Your task to perform on an android device: open app "Facebook" Image 0: 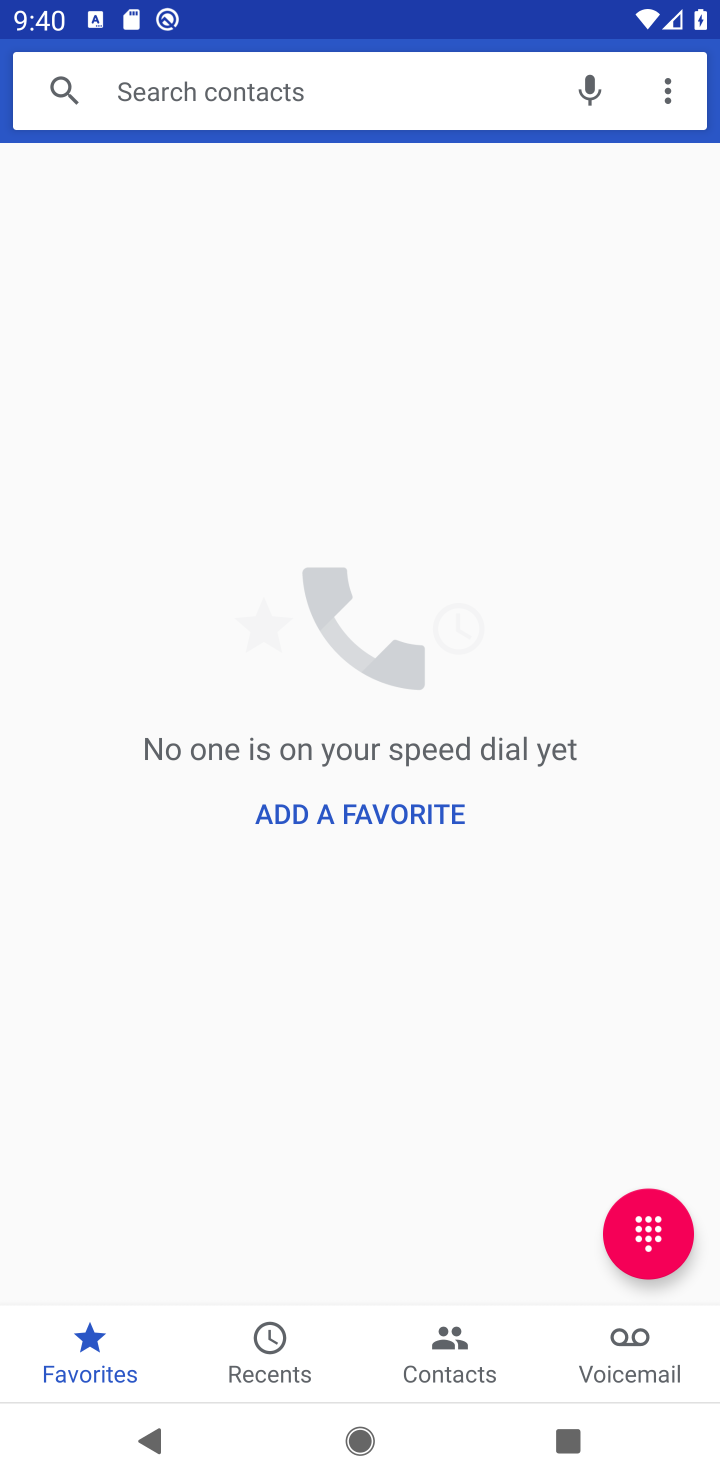
Step 0: press back button
Your task to perform on an android device: open app "Facebook" Image 1: 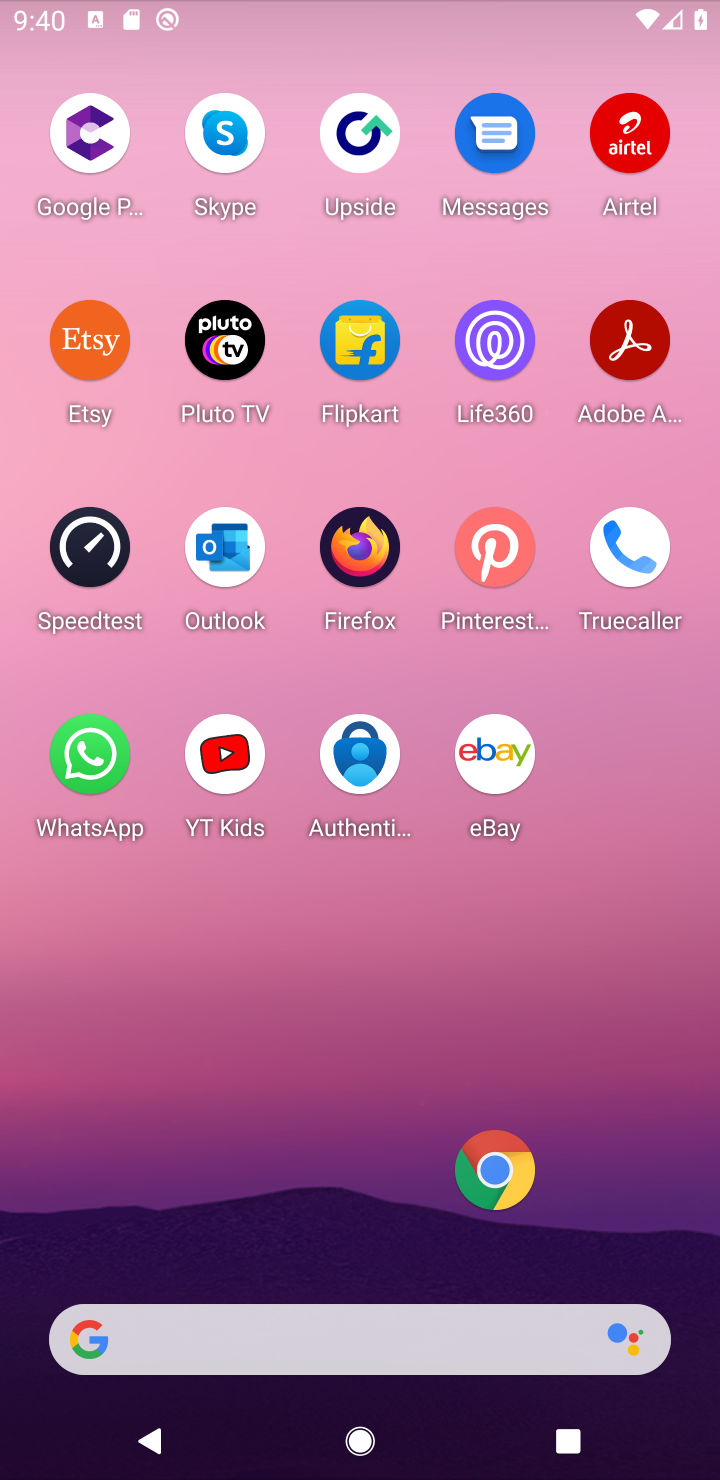
Step 1: drag from (269, 1196) to (508, 98)
Your task to perform on an android device: open app "Facebook" Image 2: 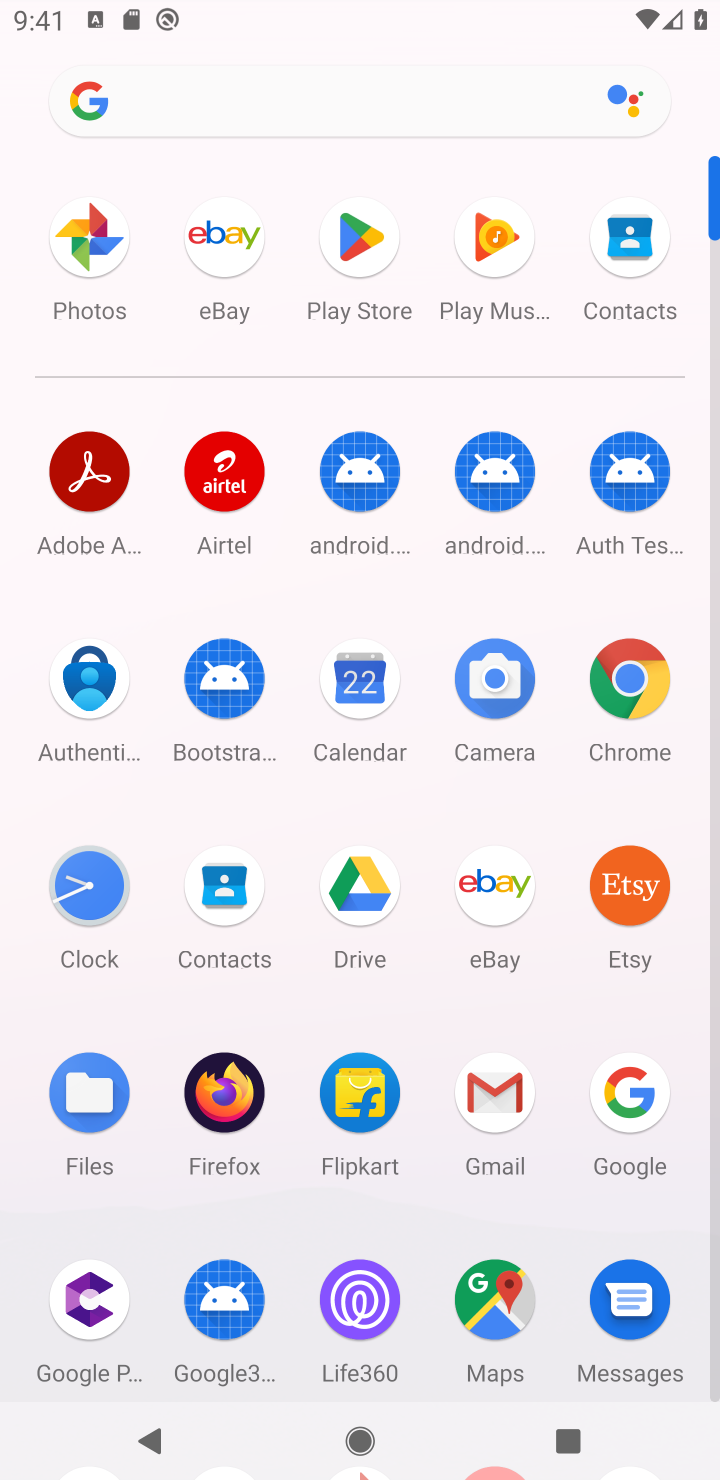
Step 2: click (363, 236)
Your task to perform on an android device: open app "Facebook" Image 3: 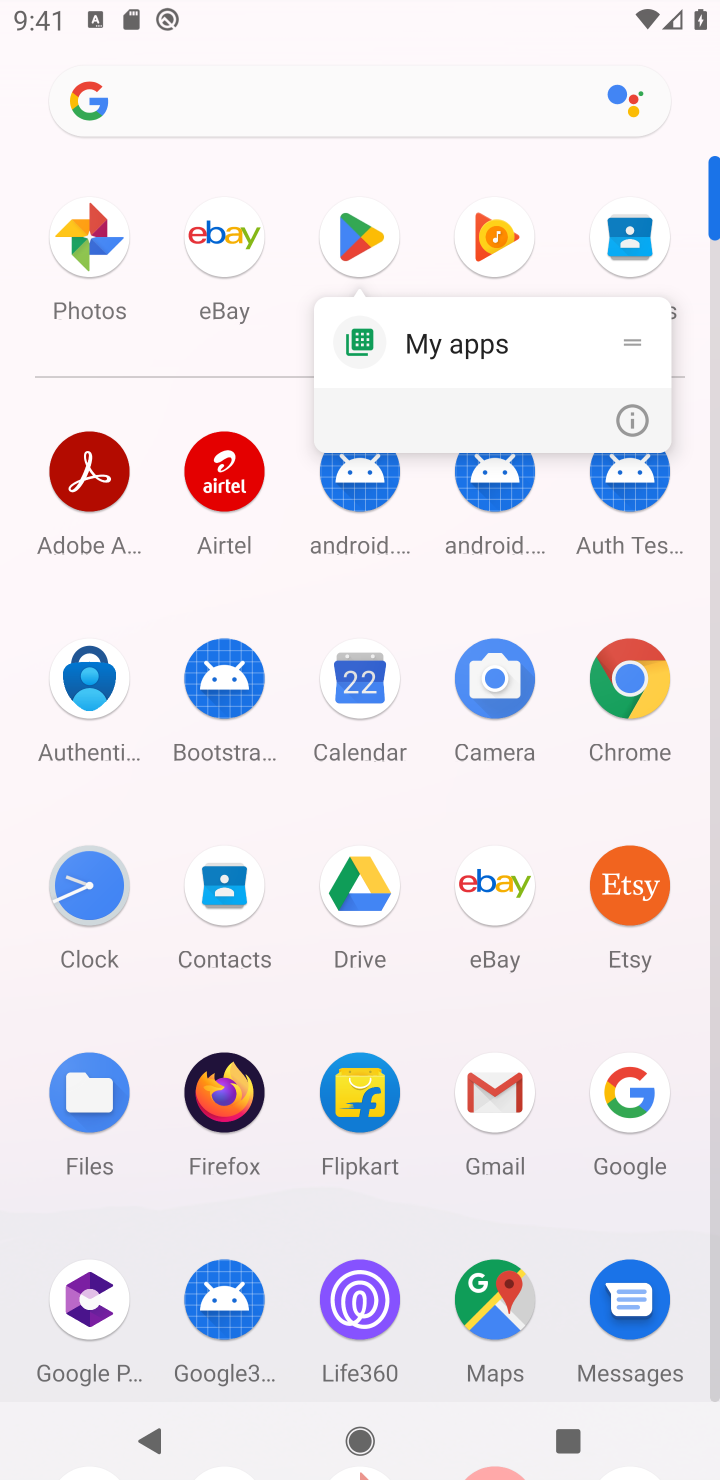
Step 3: click (332, 235)
Your task to perform on an android device: open app "Facebook" Image 4: 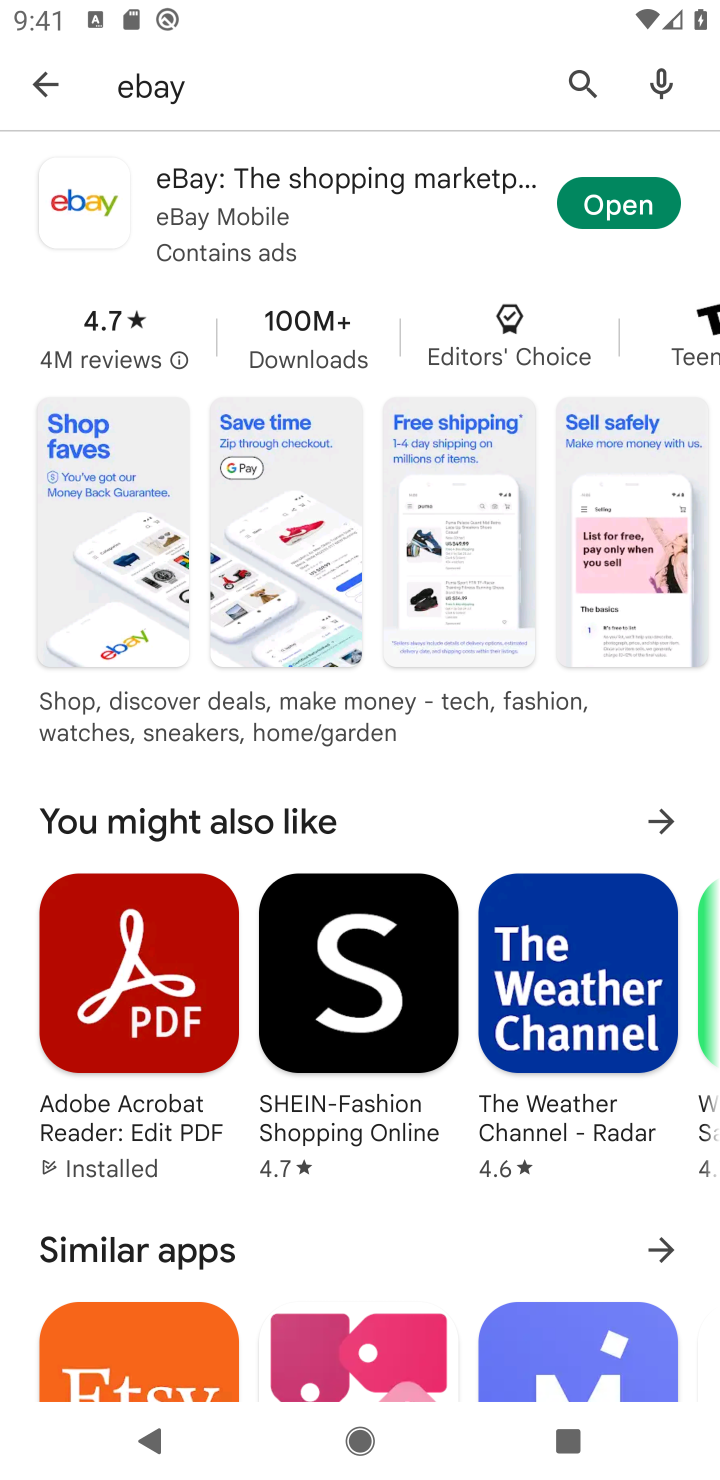
Step 4: click (586, 64)
Your task to perform on an android device: open app "Facebook" Image 5: 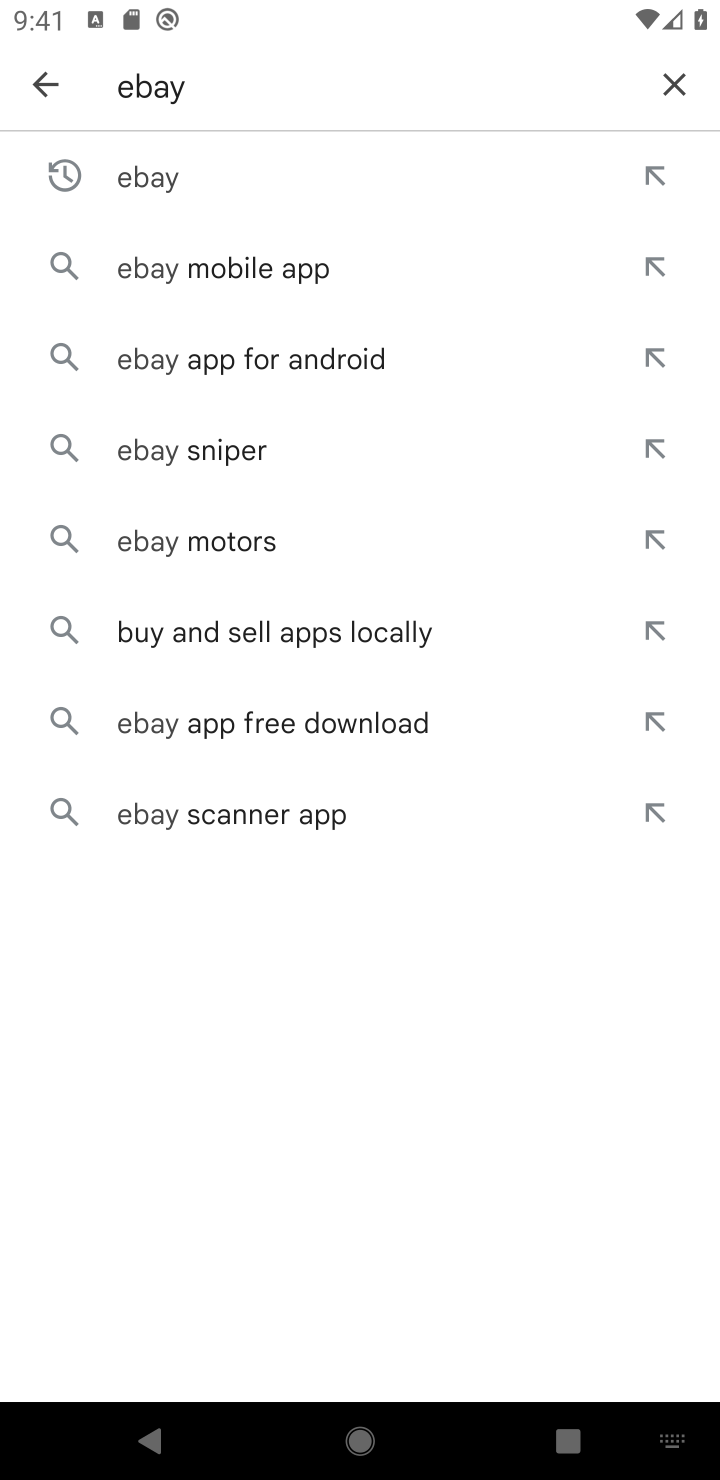
Step 5: click (661, 91)
Your task to perform on an android device: open app "Facebook" Image 6: 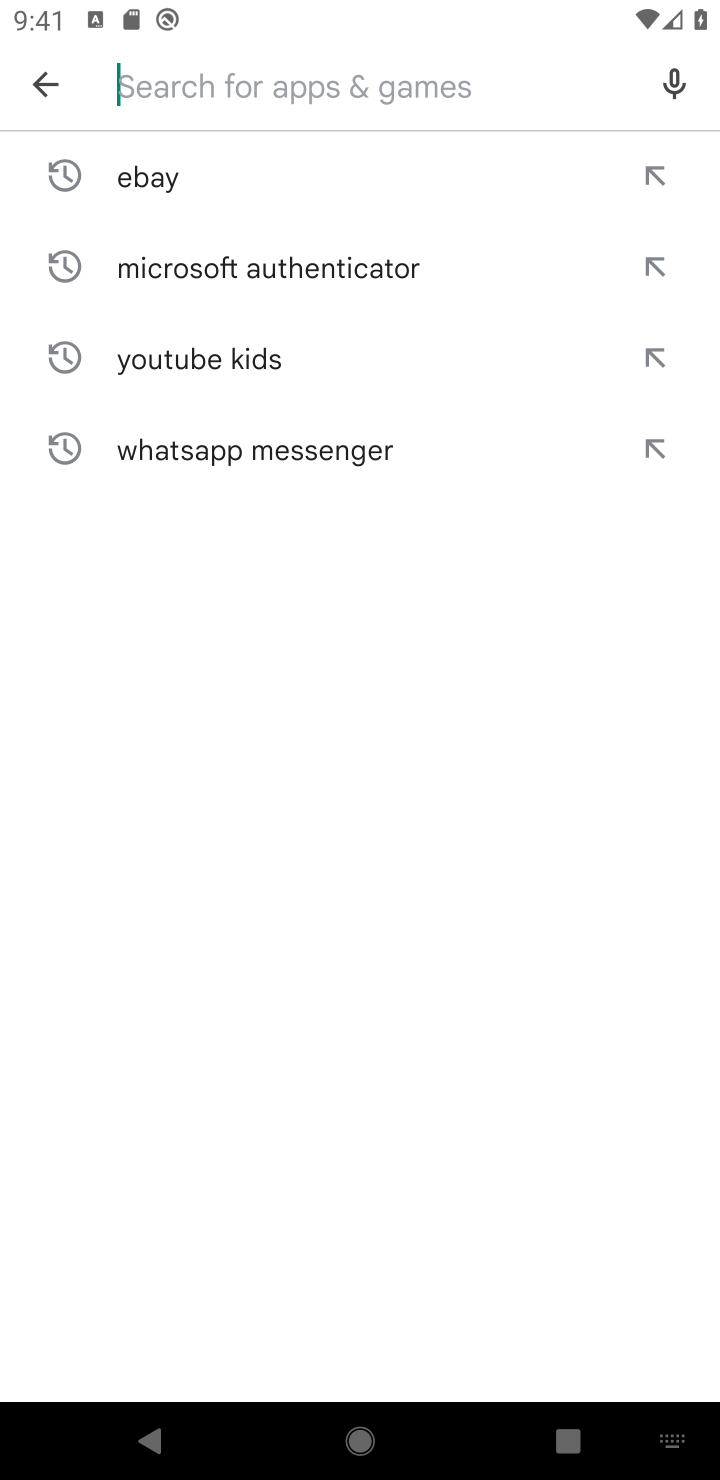
Step 6: click (224, 84)
Your task to perform on an android device: open app "Facebook" Image 7: 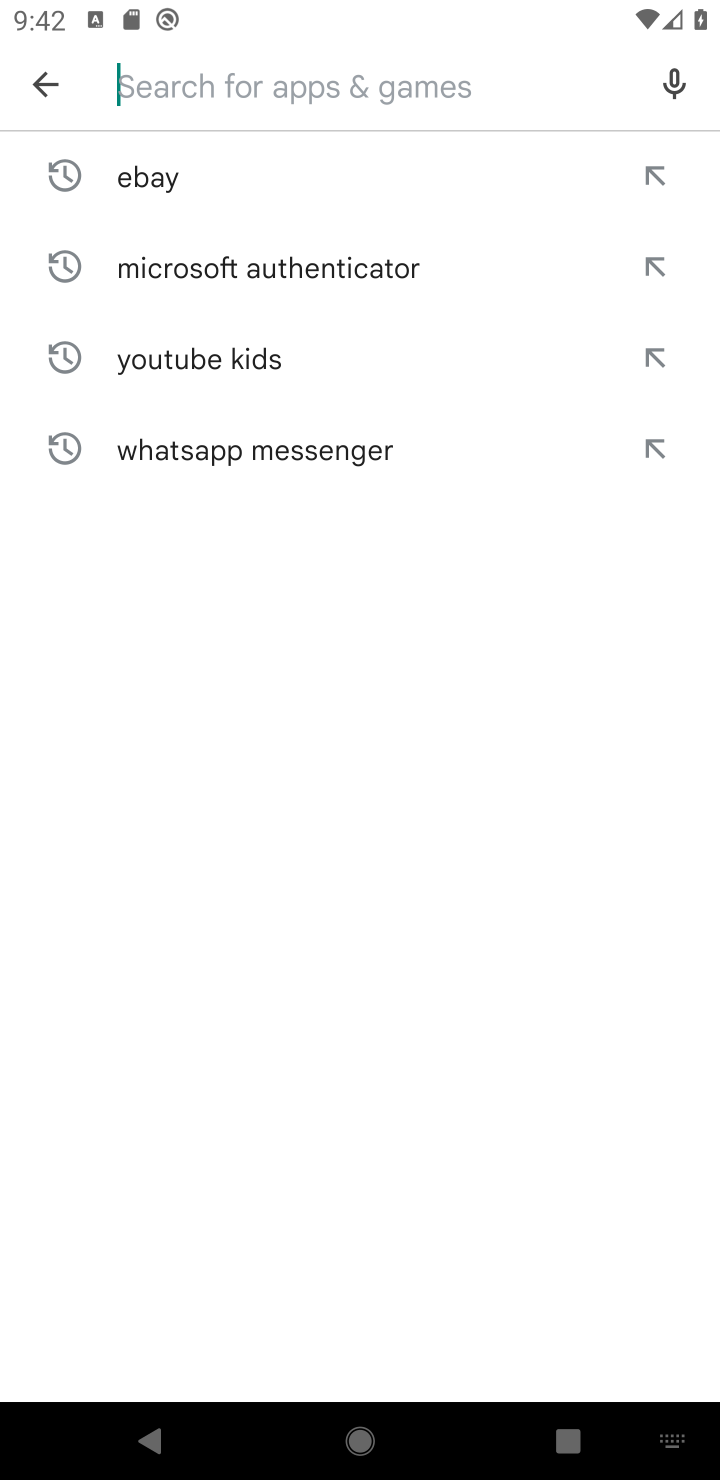
Step 7: click (321, 89)
Your task to perform on an android device: open app "Facebook" Image 8: 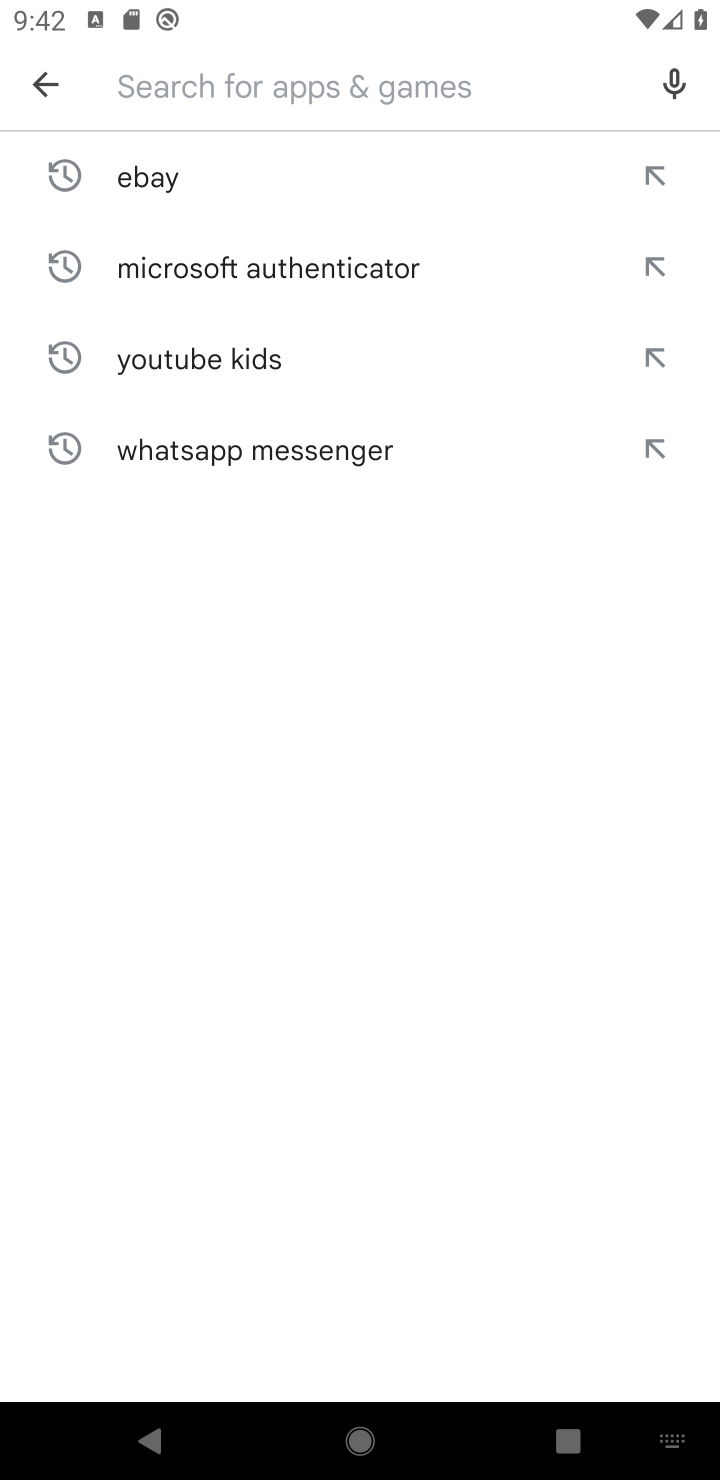
Step 8: type "facebook"
Your task to perform on an android device: open app "Facebook" Image 9: 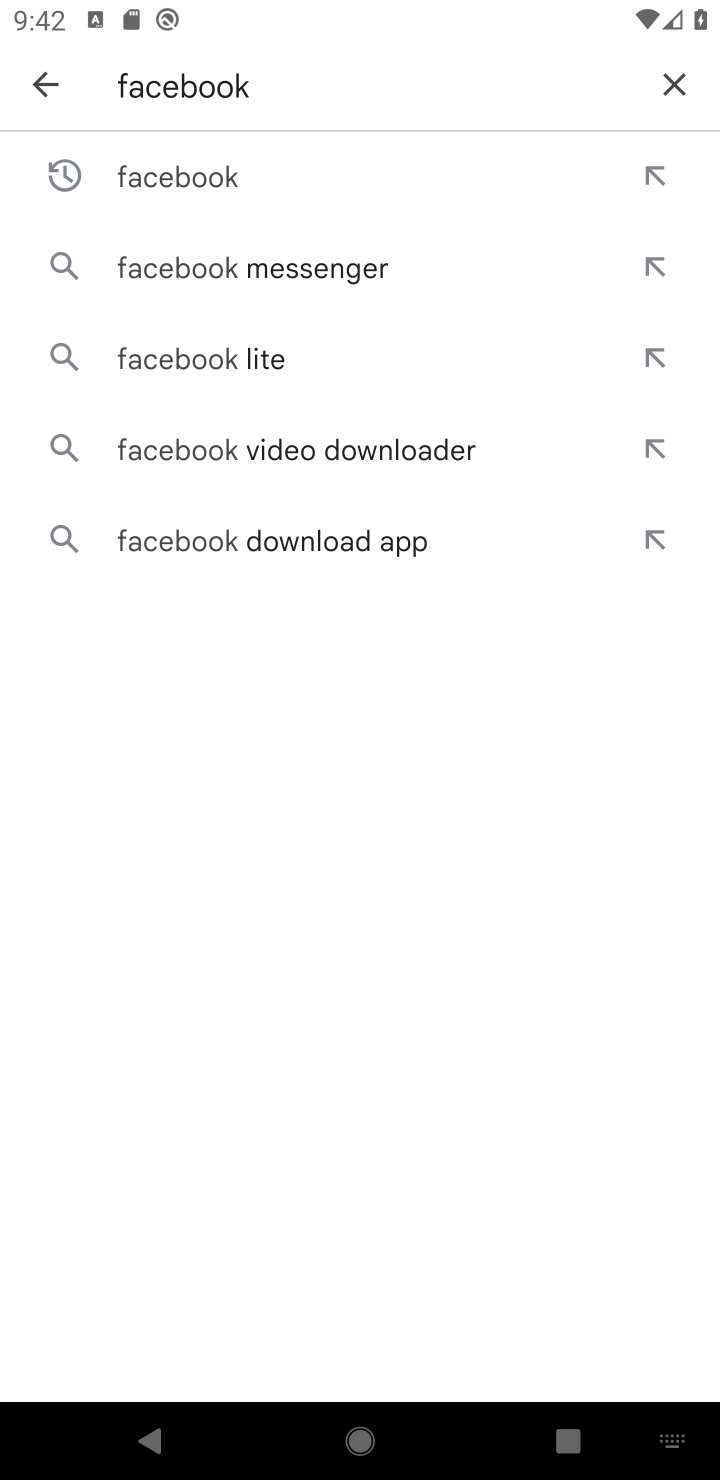
Step 9: click (198, 178)
Your task to perform on an android device: open app "Facebook" Image 10: 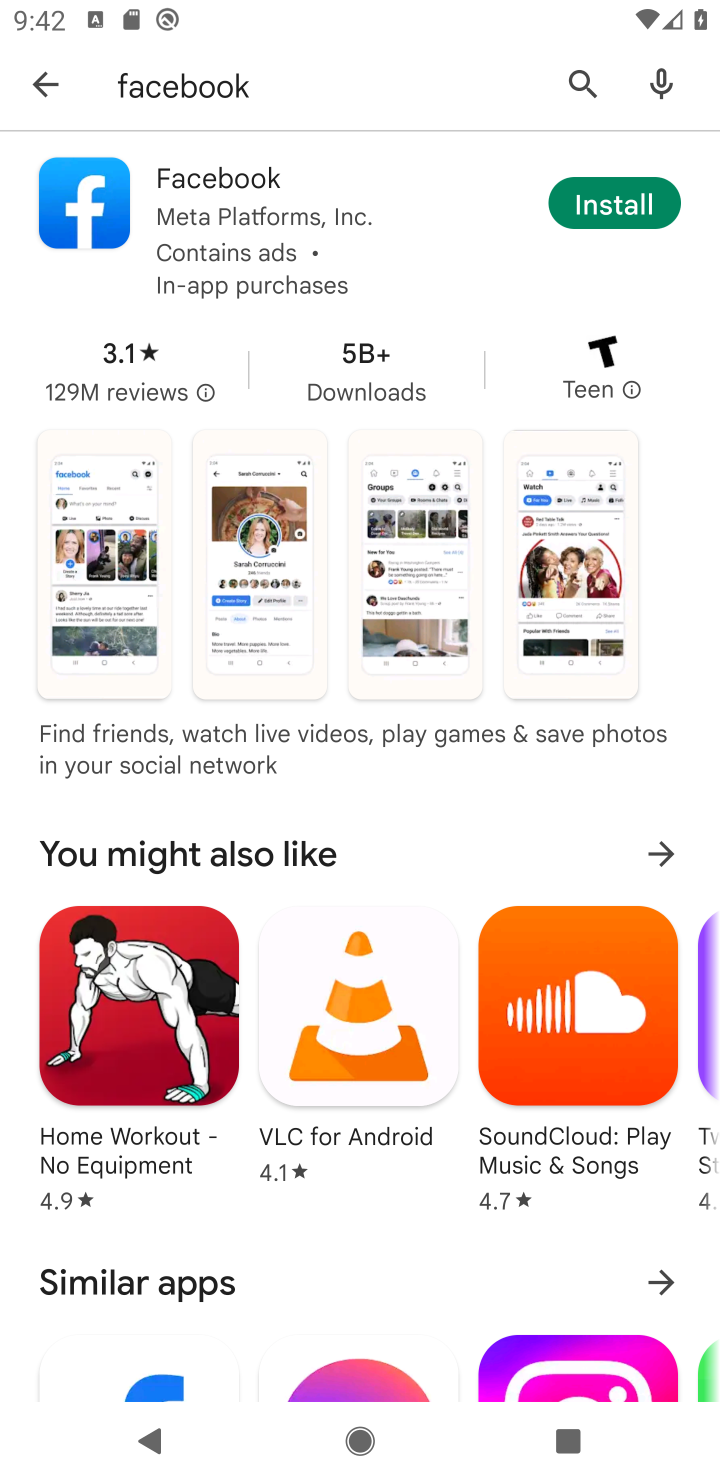
Step 10: task complete